Your task to perform on an android device: Search for the best rated headphones on AliExpress. Image 0: 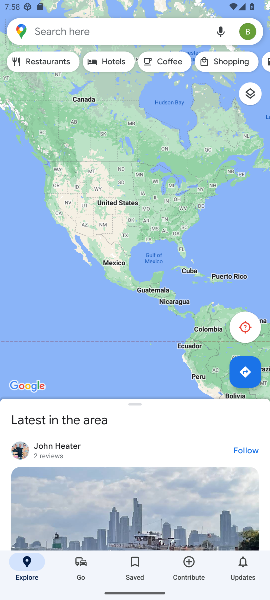
Step 0: press home button
Your task to perform on an android device: Search for the best rated headphones on AliExpress. Image 1: 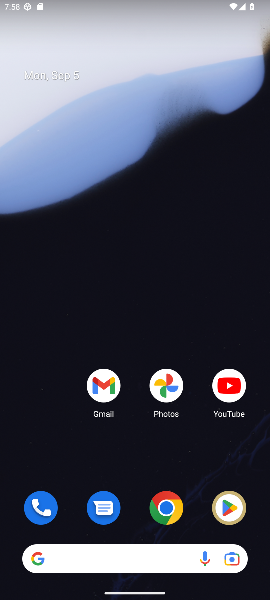
Step 1: click (163, 508)
Your task to perform on an android device: Search for the best rated headphones on AliExpress. Image 2: 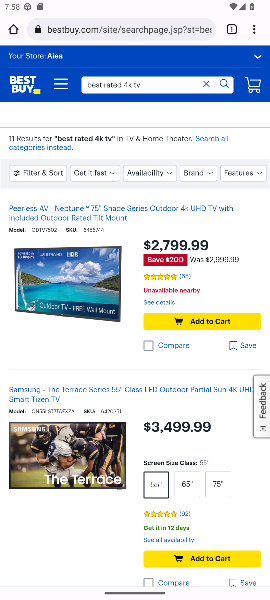
Step 2: click (125, 38)
Your task to perform on an android device: Search for the best rated headphones on AliExpress. Image 3: 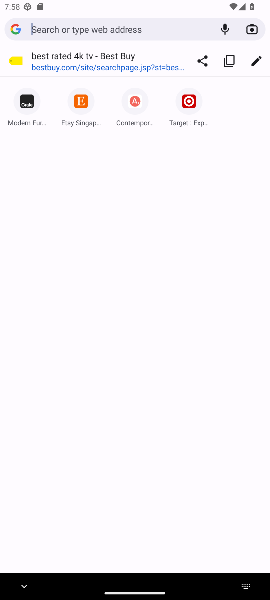
Step 3: type "AliExpress."
Your task to perform on an android device: Search for the best rated headphones on AliExpress. Image 4: 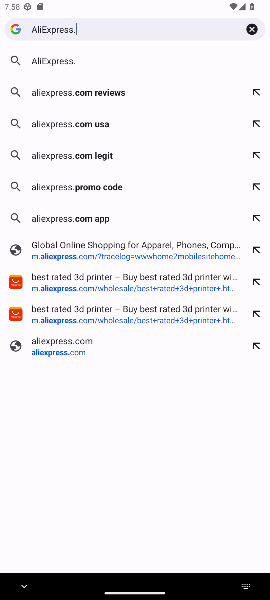
Step 4: click (47, 71)
Your task to perform on an android device: Search for the best rated headphones on AliExpress. Image 5: 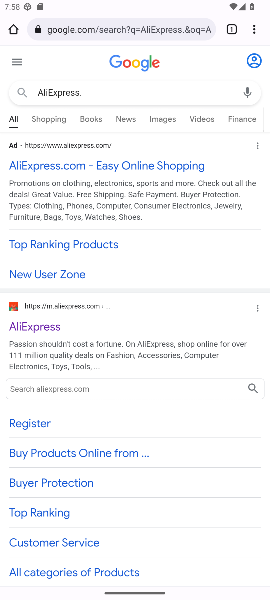
Step 5: click (22, 326)
Your task to perform on an android device: Search for the best rated headphones on AliExpress. Image 6: 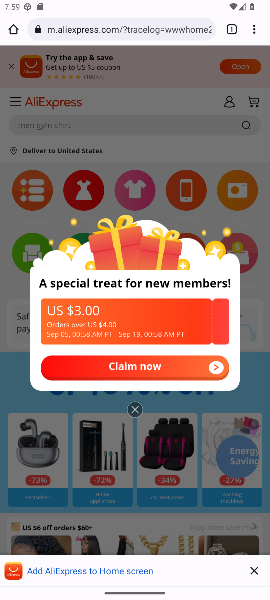
Step 6: click (133, 412)
Your task to perform on an android device: Search for the best rated headphones on AliExpress. Image 7: 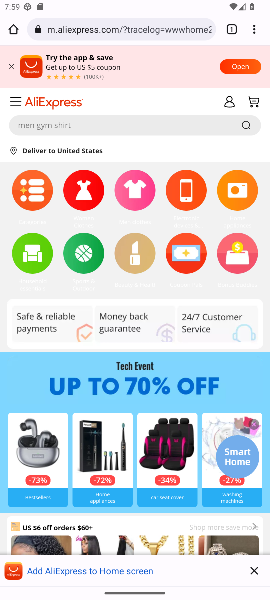
Step 7: click (248, 124)
Your task to perform on an android device: Search for the best rated headphones on AliExpress. Image 8: 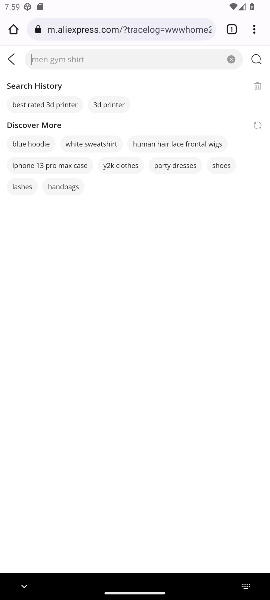
Step 8: type "best rated headphones"
Your task to perform on an android device: Search for the best rated headphones on AliExpress. Image 9: 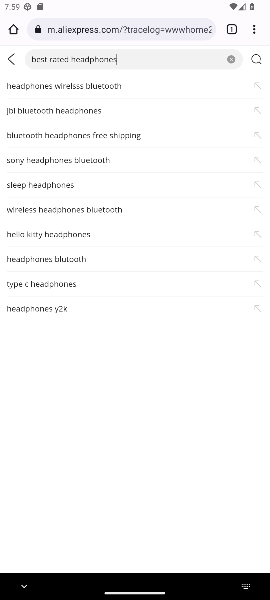
Step 9: click (252, 60)
Your task to perform on an android device: Search for the best rated headphones on AliExpress. Image 10: 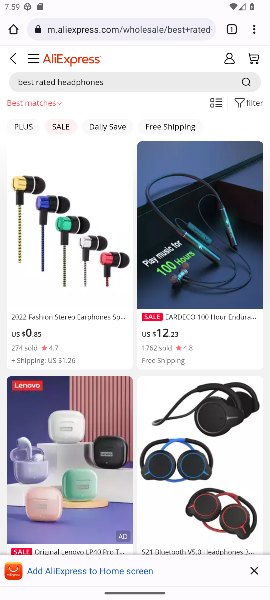
Step 10: task complete